Your task to perform on an android device: Open the map Image 0: 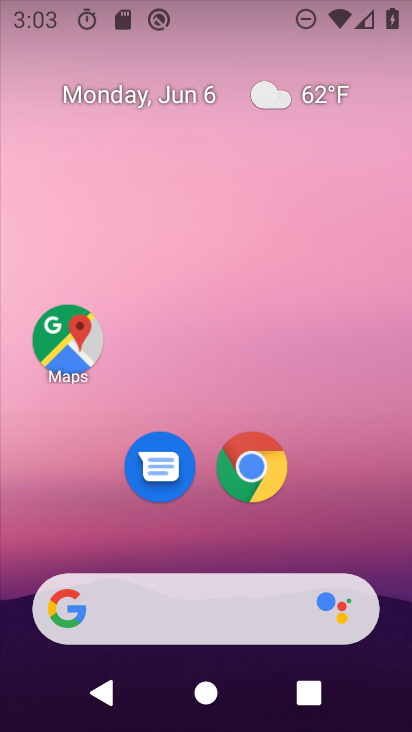
Step 0: click (62, 351)
Your task to perform on an android device: Open the map Image 1: 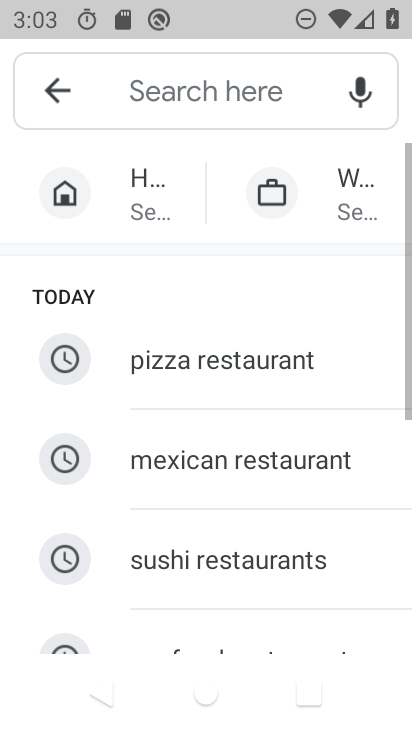
Step 1: task complete